Your task to perform on an android device: Go to sound settings Image 0: 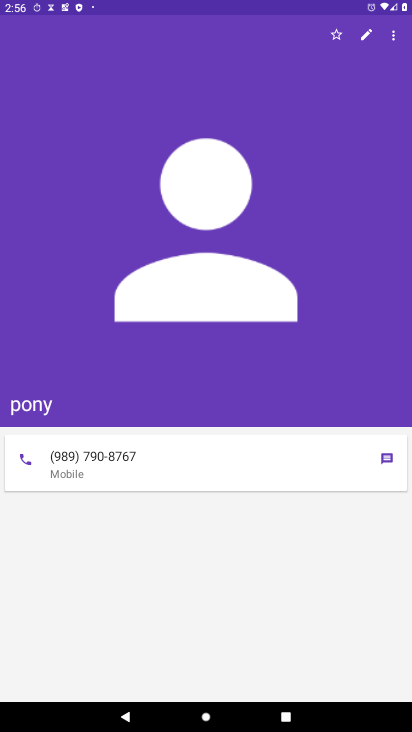
Step 0: press home button
Your task to perform on an android device: Go to sound settings Image 1: 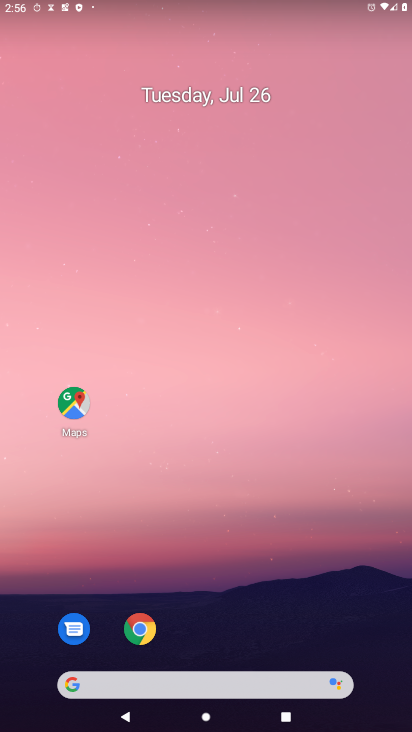
Step 1: drag from (193, 674) to (252, 7)
Your task to perform on an android device: Go to sound settings Image 2: 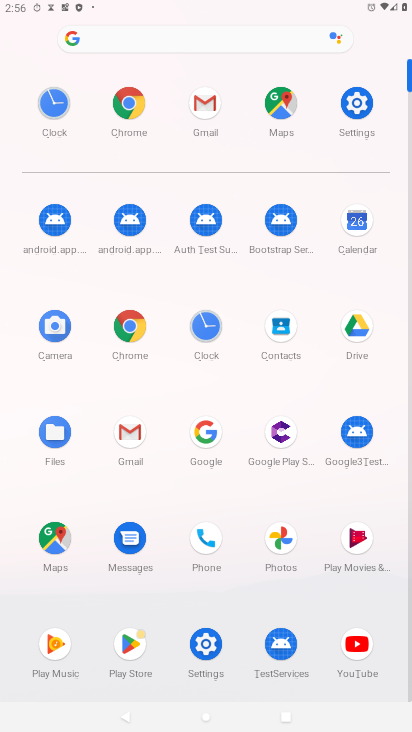
Step 2: click (374, 95)
Your task to perform on an android device: Go to sound settings Image 3: 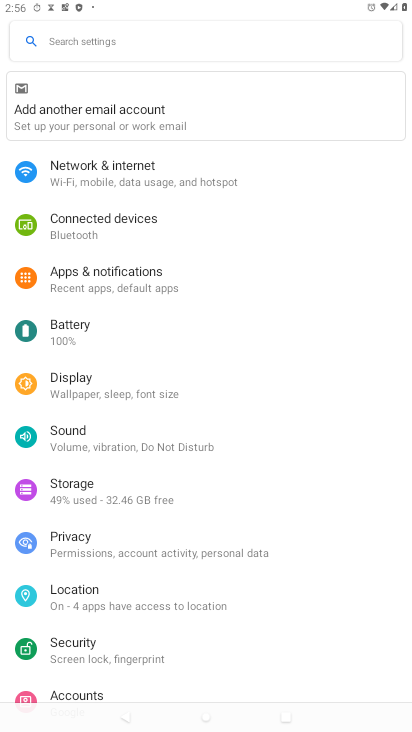
Step 3: click (94, 440)
Your task to perform on an android device: Go to sound settings Image 4: 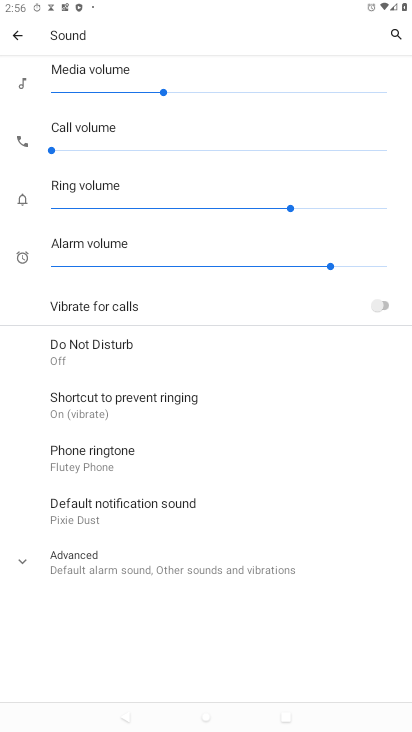
Step 4: task complete